Your task to perform on an android device: move an email to a new category in the gmail app Image 0: 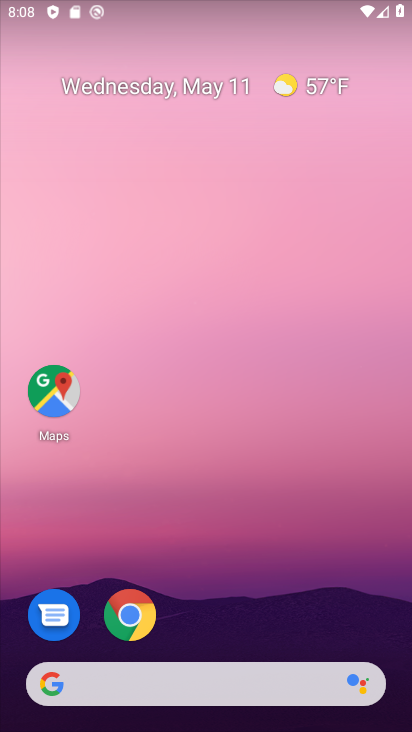
Step 0: drag from (272, 584) to (277, 190)
Your task to perform on an android device: move an email to a new category in the gmail app Image 1: 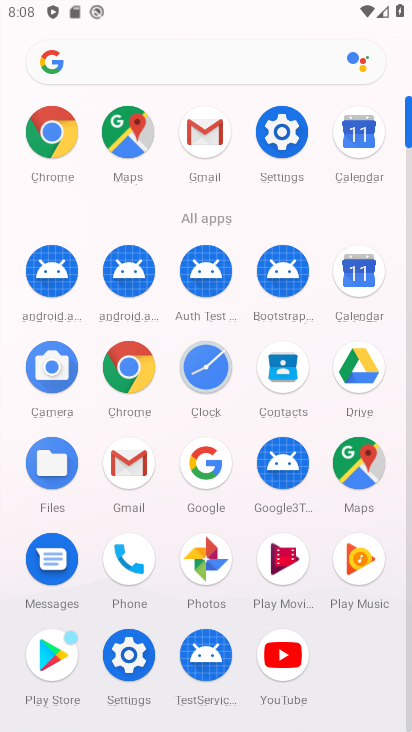
Step 1: click (200, 149)
Your task to perform on an android device: move an email to a new category in the gmail app Image 2: 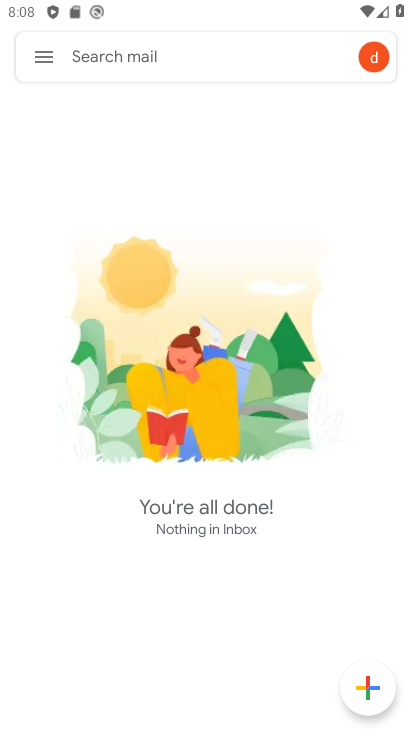
Step 2: task complete